Your task to perform on an android device: remove spam from my inbox in the gmail app Image 0: 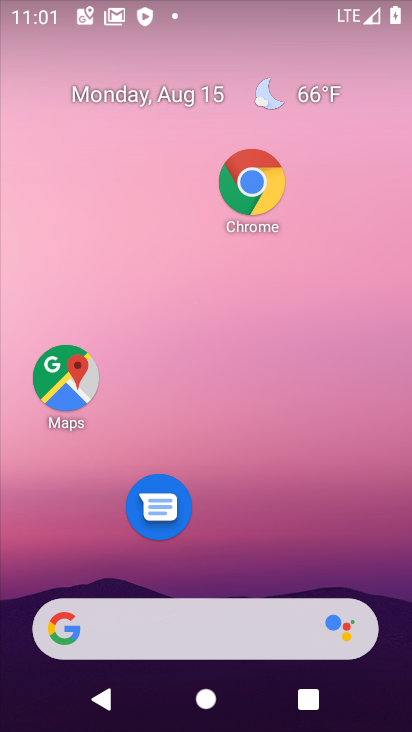
Step 0: task complete